Your task to perform on an android device: Open Android settings Image 0: 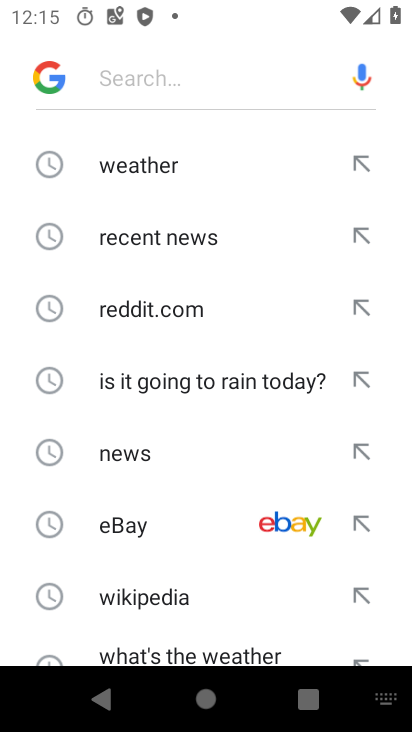
Step 0: press home button
Your task to perform on an android device: Open Android settings Image 1: 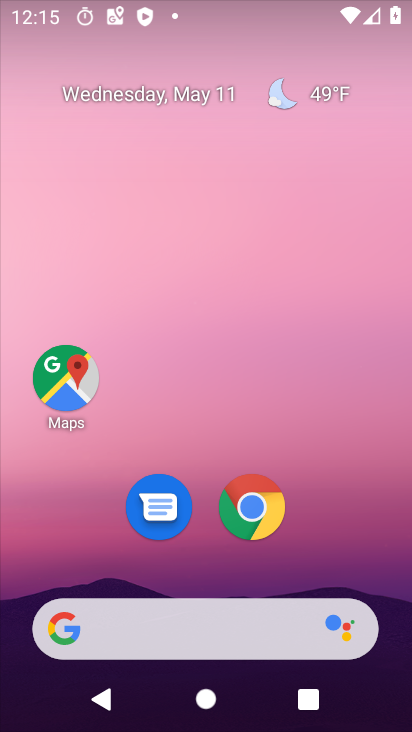
Step 1: drag from (216, 566) to (190, 110)
Your task to perform on an android device: Open Android settings Image 2: 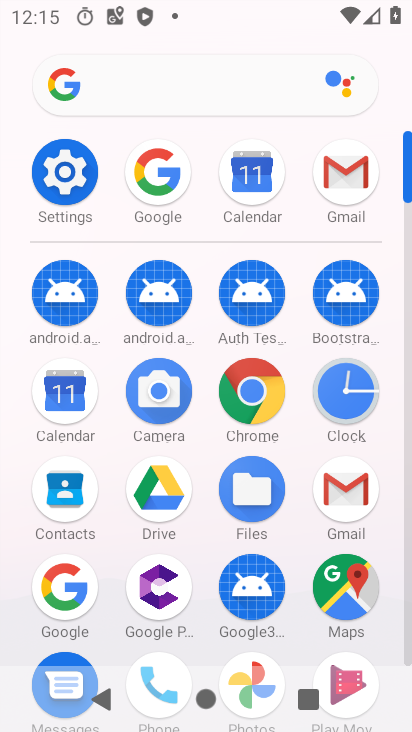
Step 2: click (66, 178)
Your task to perform on an android device: Open Android settings Image 3: 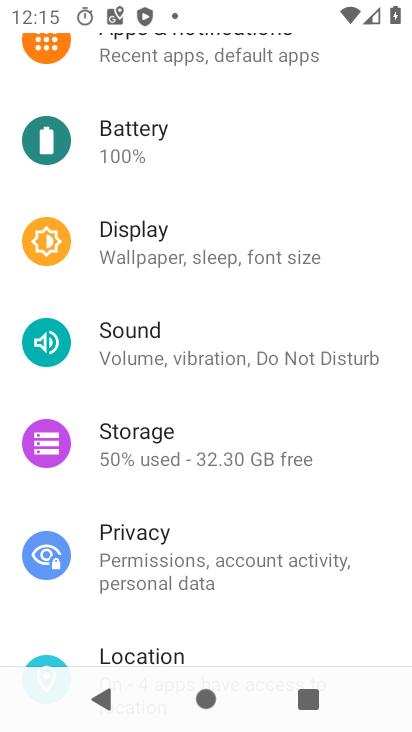
Step 3: task complete